Your task to perform on an android device: toggle data saver in the chrome app Image 0: 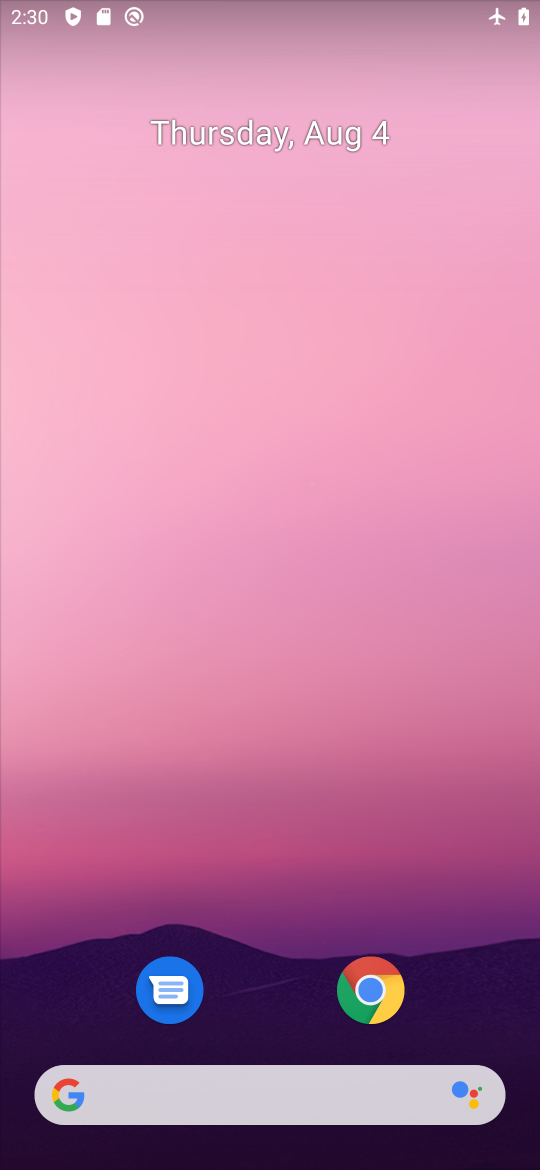
Step 0: click (399, 962)
Your task to perform on an android device: toggle data saver in the chrome app Image 1: 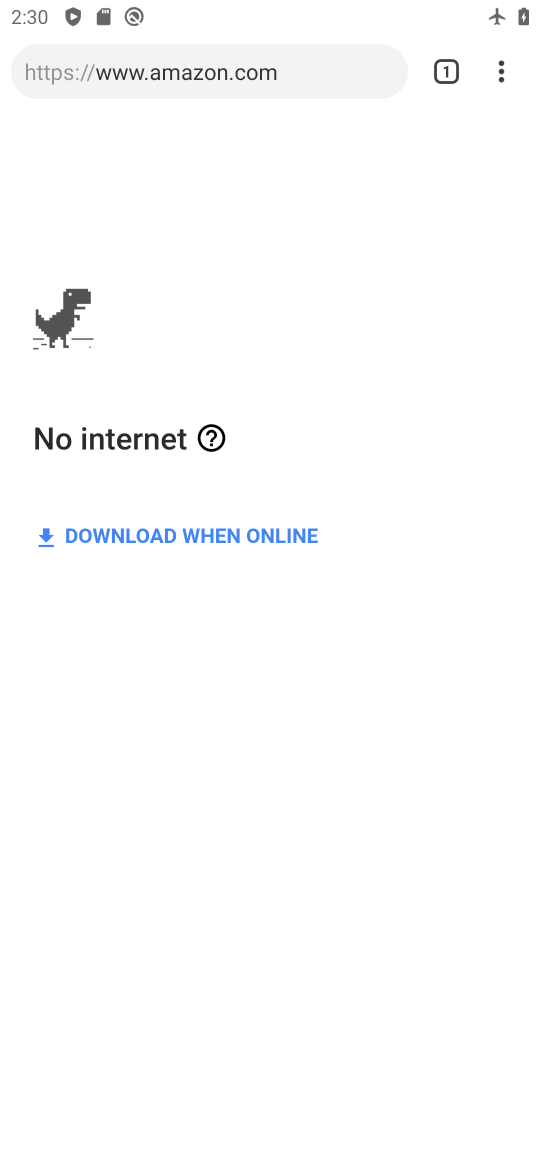
Step 1: task complete